Your task to perform on an android device: Open the stopwatch Image 0: 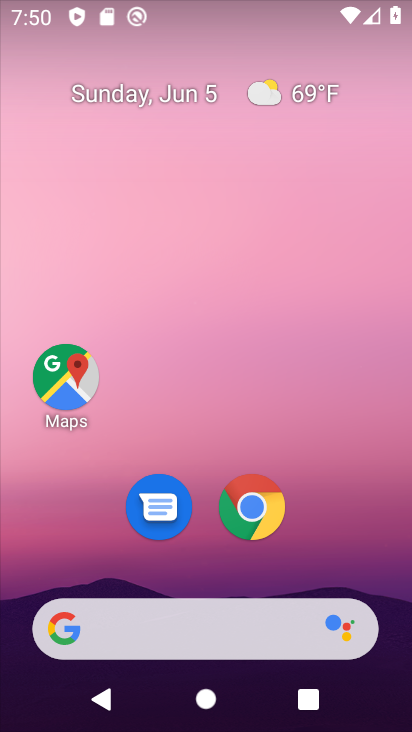
Step 0: press back button
Your task to perform on an android device: Open the stopwatch Image 1: 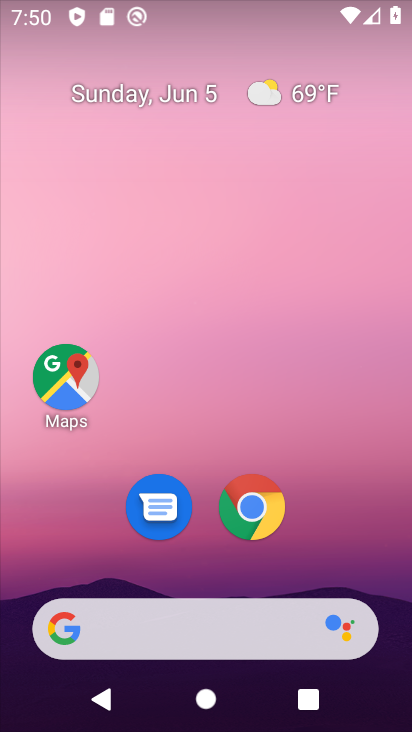
Step 1: click (259, 33)
Your task to perform on an android device: Open the stopwatch Image 2: 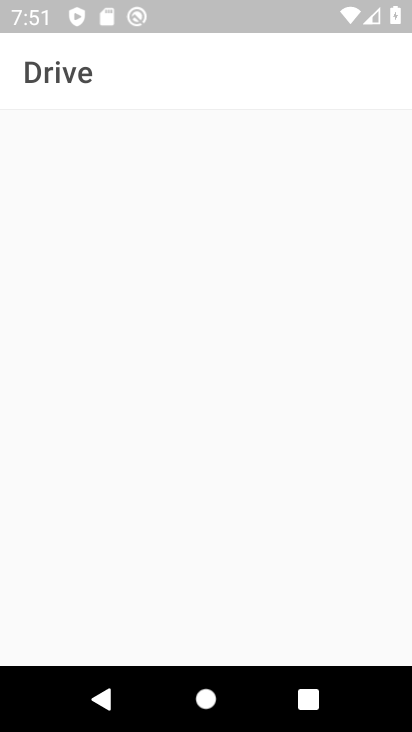
Step 2: press back button
Your task to perform on an android device: Open the stopwatch Image 3: 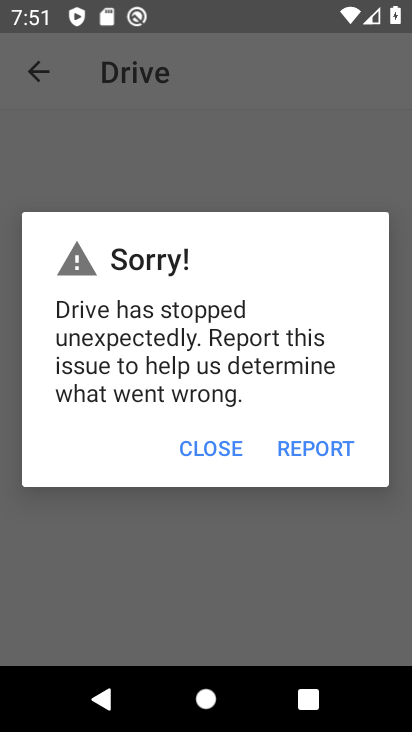
Step 3: press back button
Your task to perform on an android device: Open the stopwatch Image 4: 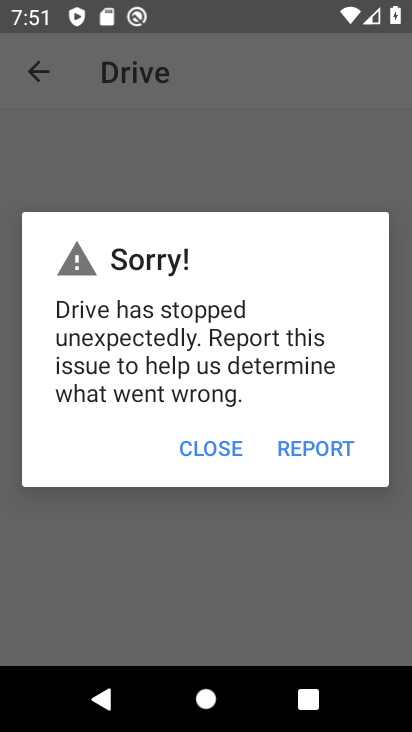
Step 4: press home button
Your task to perform on an android device: Open the stopwatch Image 5: 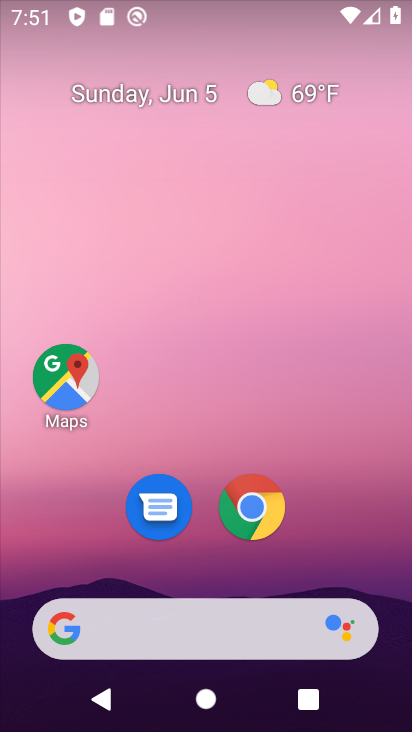
Step 5: drag from (406, 653) to (234, 39)
Your task to perform on an android device: Open the stopwatch Image 6: 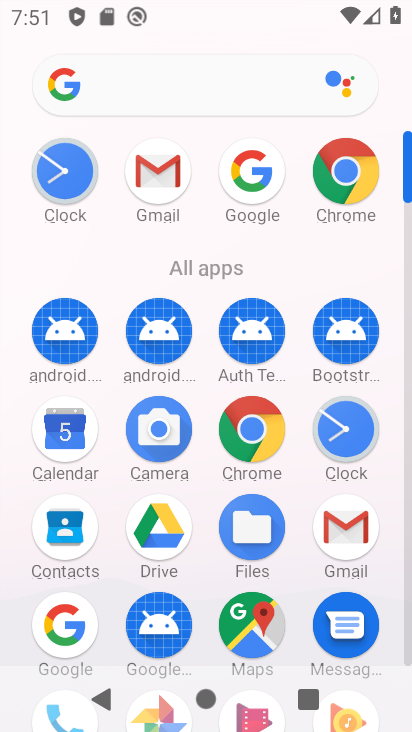
Step 6: click (344, 426)
Your task to perform on an android device: Open the stopwatch Image 7: 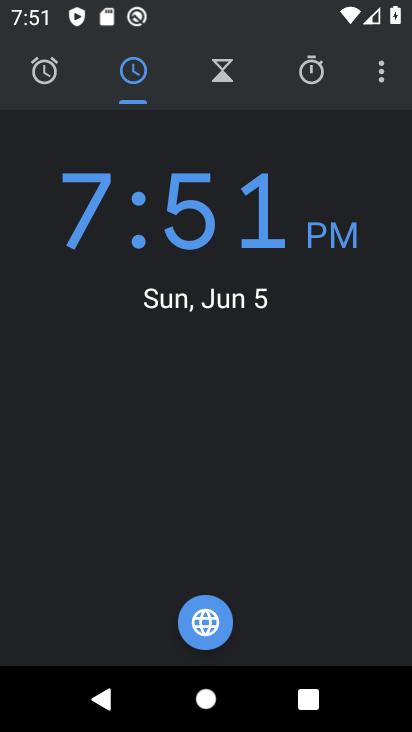
Step 7: click (310, 71)
Your task to perform on an android device: Open the stopwatch Image 8: 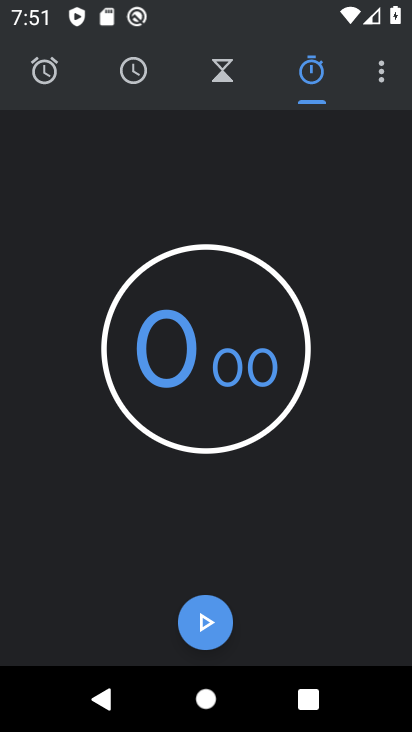
Step 8: click (204, 635)
Your task to perform on an android device: Open the stopwatch Image 9: 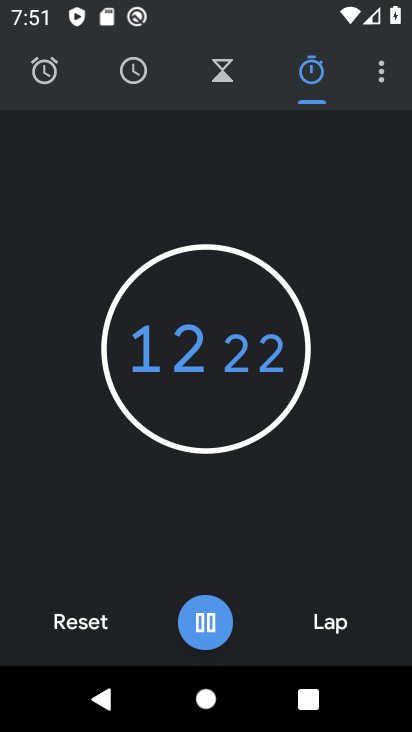
Step 9: task complete